Your task to perform on an android device: turn off translation in the chrome app Image 0: 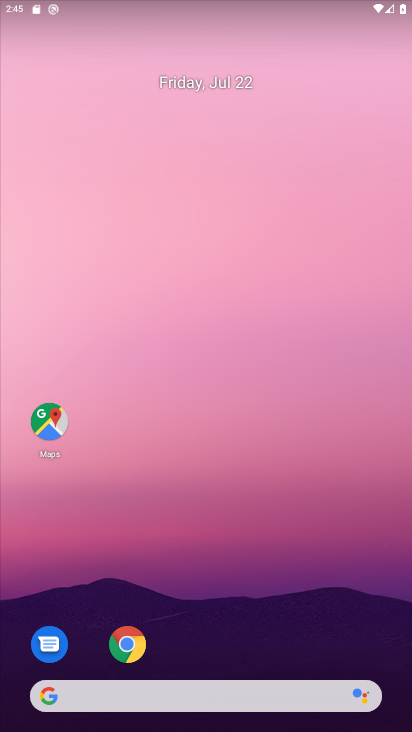
Step 0: drag from (220, 621) to (231, 124)
Your task to perform on an android device: turn off translation in the chrome app Image 1: 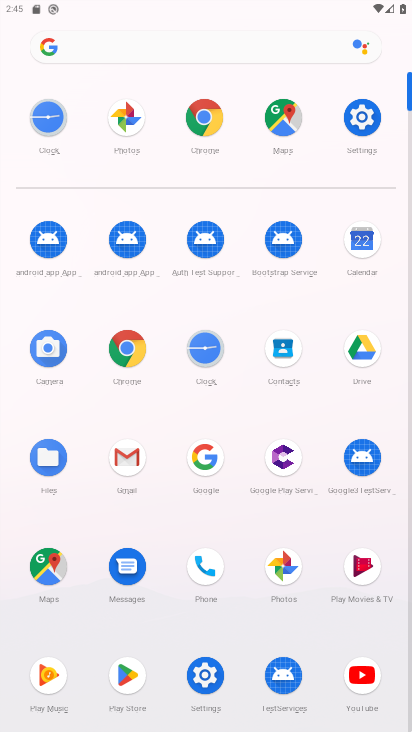
Step 1: click (125, 345)
Your task to perform on an android device: turn off translation in the chrome app Image 2: 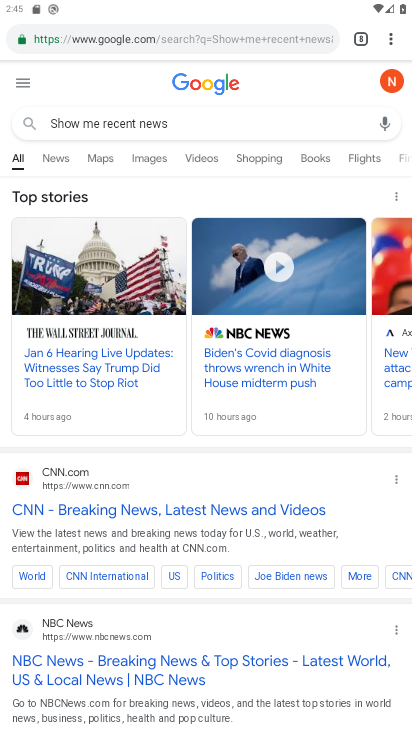
Step 2: click (395, 32)
Your task to perform on an android device: turn off translation in the chrome app Image 3: 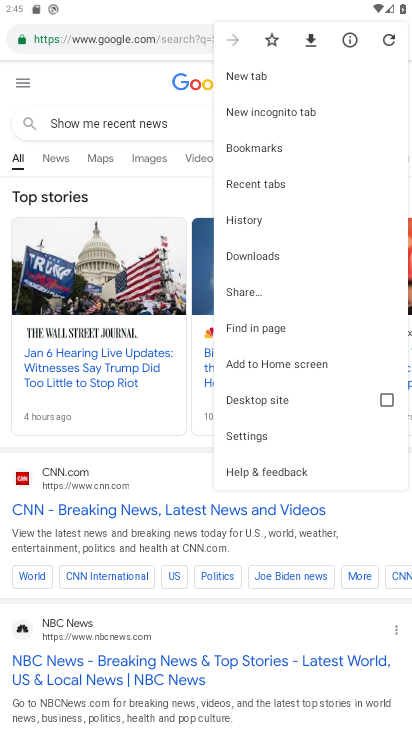
Step 3: click (249, 439)
Your task to perform on an android device: turn off translation in the chrome app Image 4: 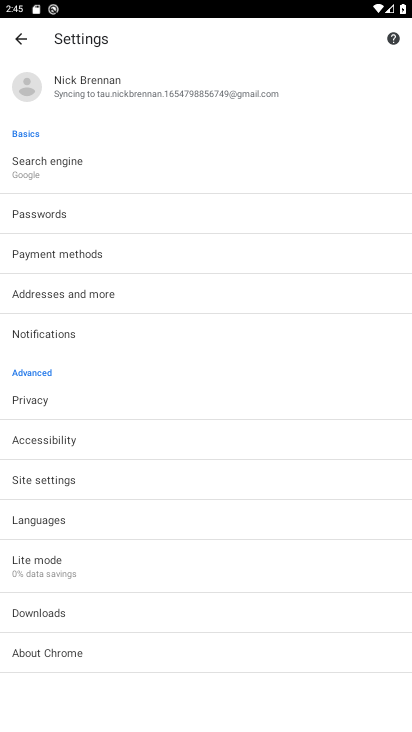
Step 4: click (69, 510)
Your task to perform on an android device: turn off translation in the chrome app Image 5: 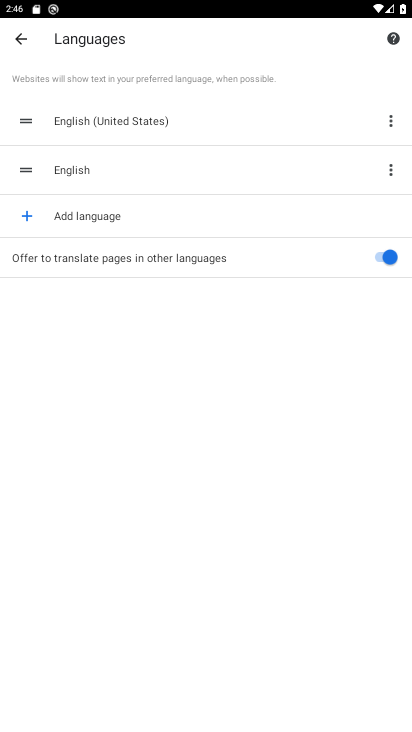
Step 5: click (379, 256)
Your task to perform on an android device: turn off translation in the chrome app Image 6: 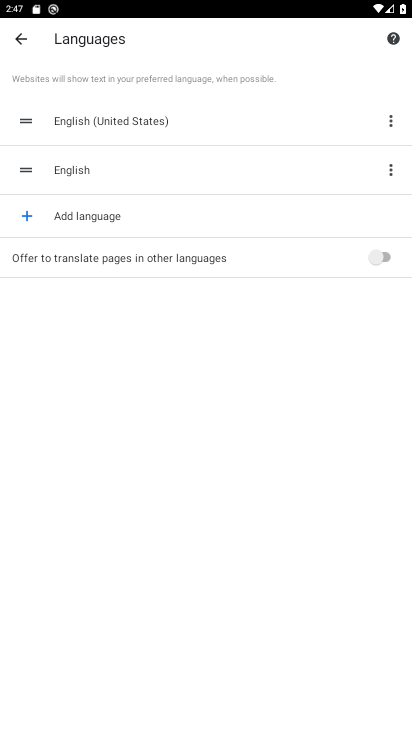
Step 6: task complete